Your task to perform on an android device: Open Chrome and go to settings Image 0: 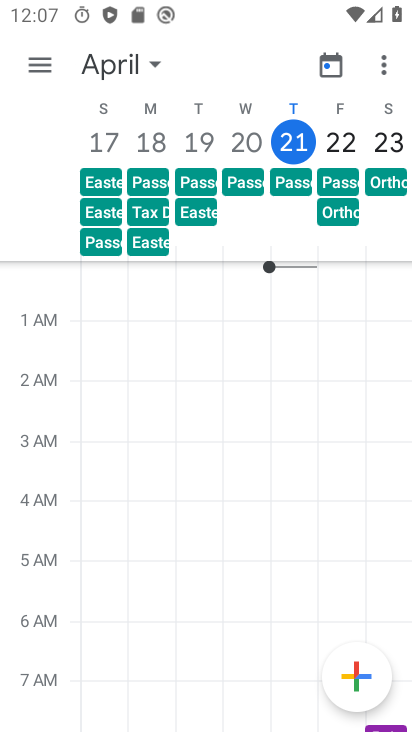
Step 0: press home button
Your task to perform on an android device: Open Chrome and go to settings Image 1: 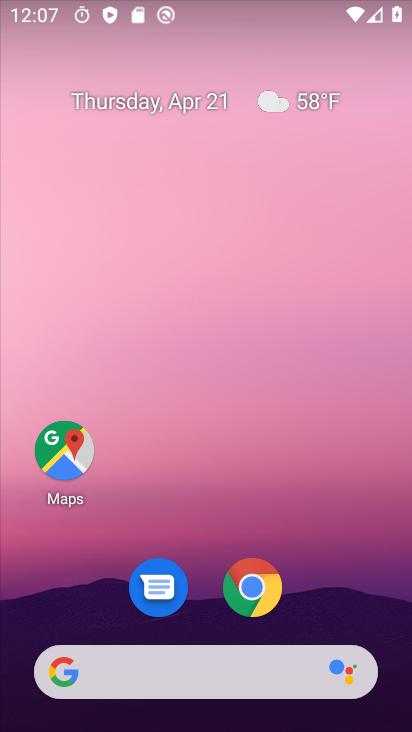
Step 1: click (262, 580)
Your task to perform on an android device: Open Chrome and go to settings Image 2: 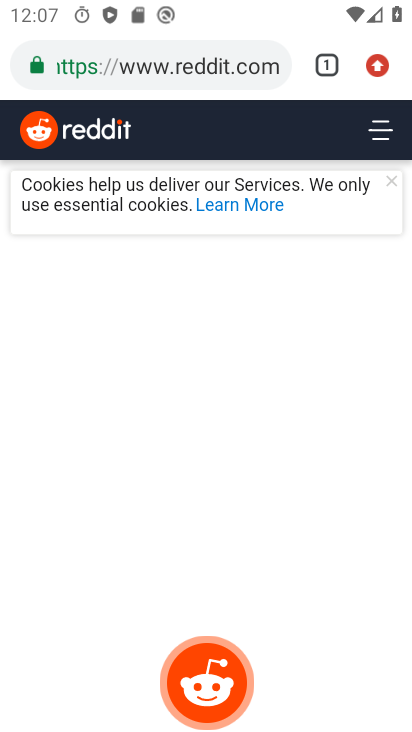
Step 2: click (378, 73)
Your task to perform on an android device: Open Chrome and go to settings Image 3: 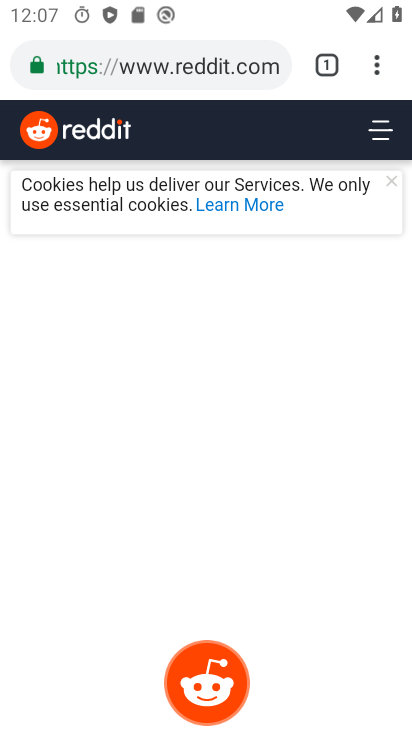
Step 3: click (382, 73)
Your task to perform on an android device: Open Chrome and go to settings Image 4: 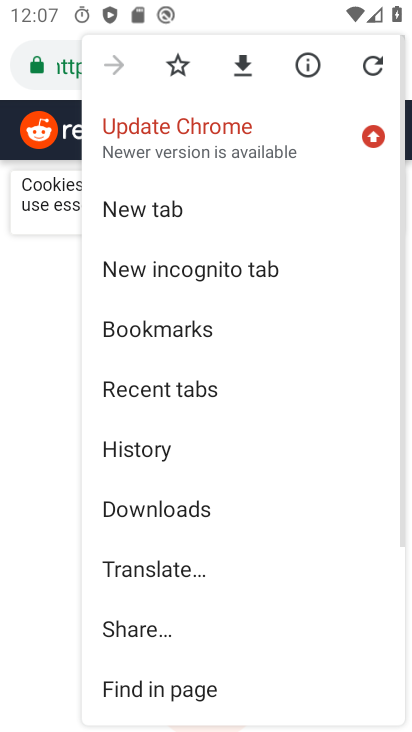
Step 4: drag from (179, 612) to (244, 134)
Your task to perform on an android device: Open Chrome and go to settings Image 5: 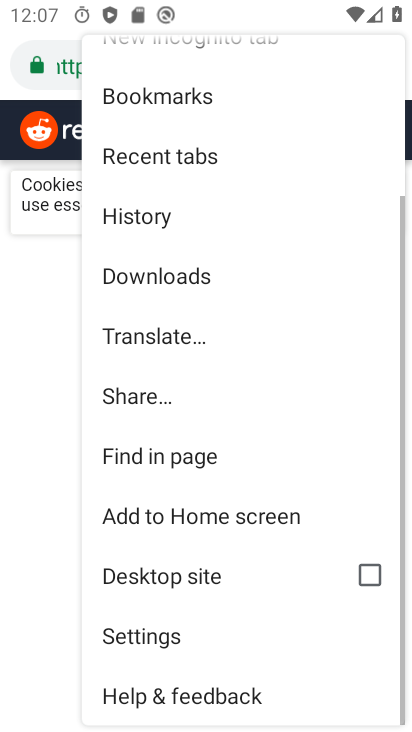
Step 5: click (157, 641)
Your task to perform on an android device: Open Chrome and go to settings Image 6: 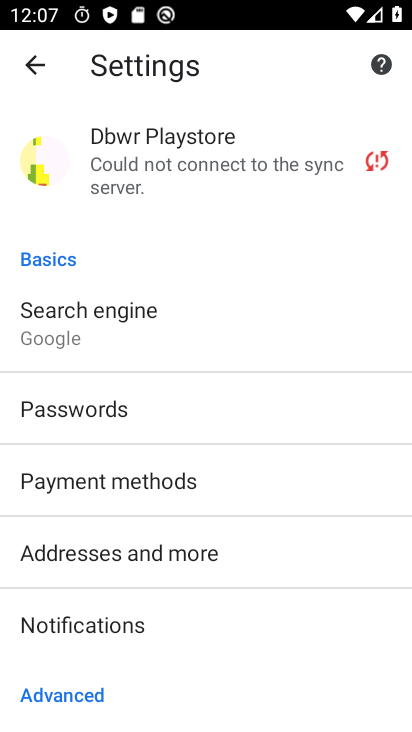
Step 6: task complete